Your task to perform on an android device: open sync settings in chrome Image 0: 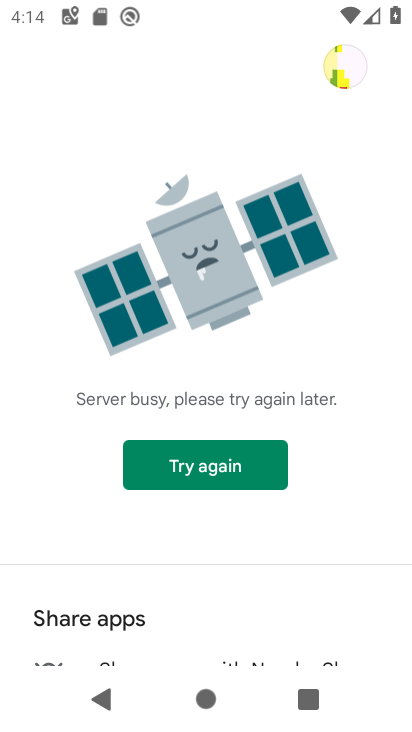
Step 0: press home button
Your task to perform on an android device: open sync settings in chrome Image 1: 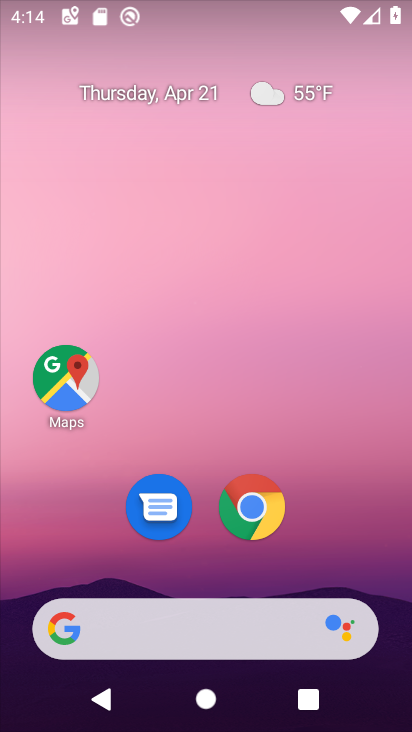
Step 1: click (263, 515)
Your task to perform on an android device: open sync settings in chrome Image 2: 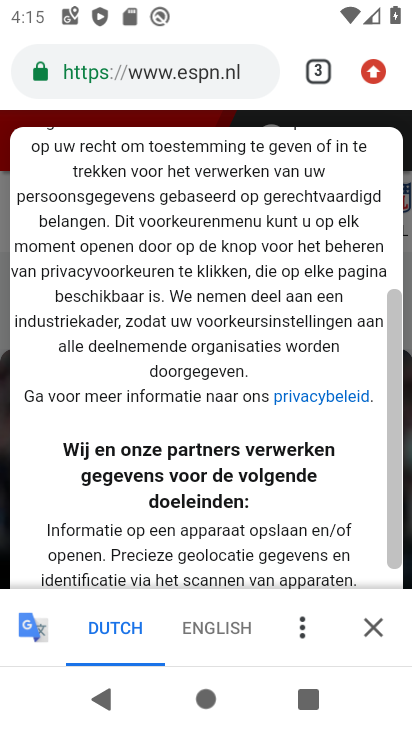
Step 2: click (373, 106)
Your task to perform on an android device: open sync settings in chrome Image 3: 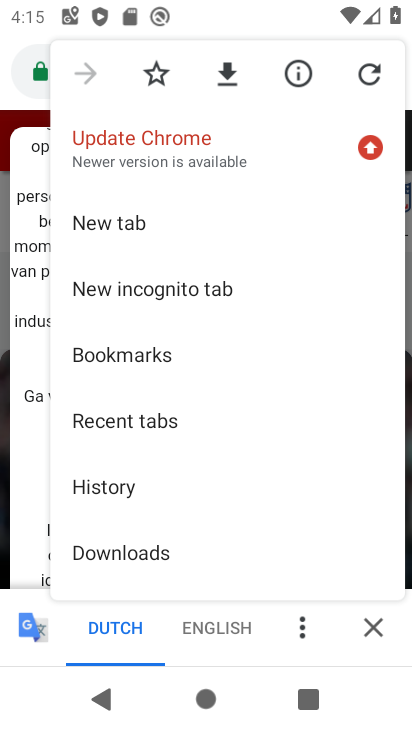
Step 3: drag from (237, 569) to (260, 34)
Your task to perform on an android device: open sync settings in chrome Image 4: 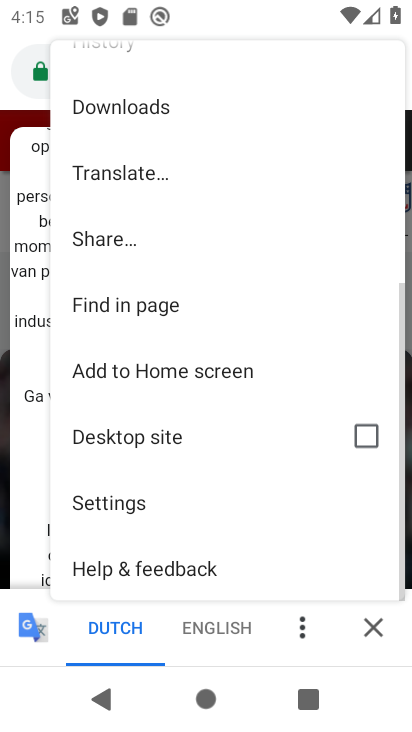
Step 4: click (180, 502)
Your task to perform on an android device: open sync settings in chrome Image 5: 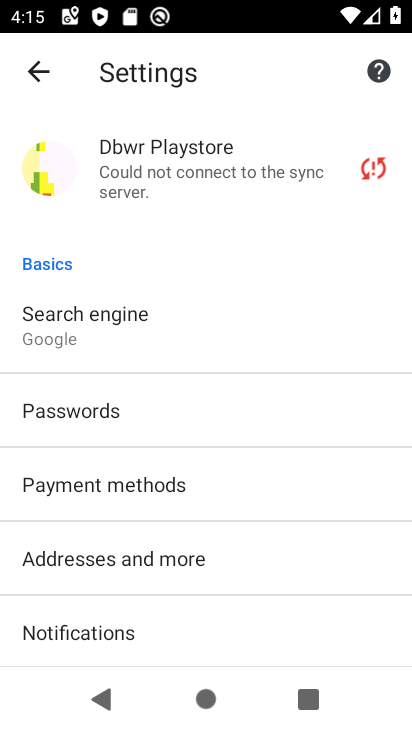
Step 5: click (279, 173)
Your task to perform on an android device: open sync settings in chrome Image 6: 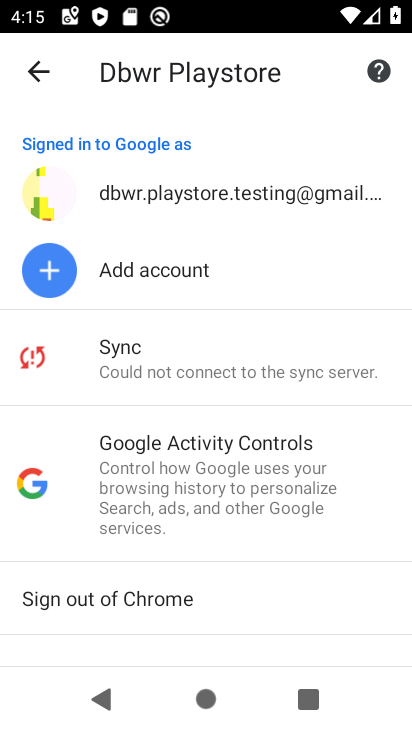
Step 6: click (286, 376)
Your task to perform on an android device: open sync settings in chrome Image 7: 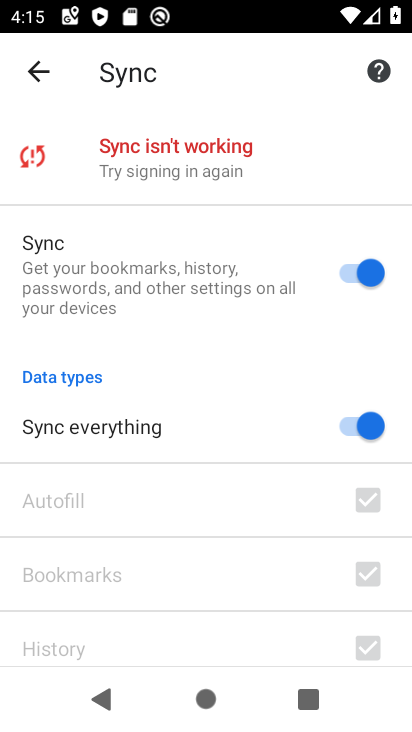
Step 7: task complete